Your task to perform on an android device: Play the last video I watched on Youtube Image 0: 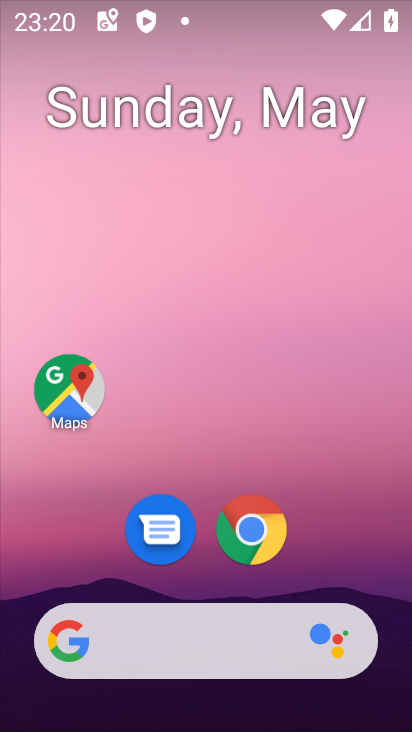
Step 0: drag from (366, 556) to (255, 20)
Your task to perform on an android device: Play the last video I watched on Youtube Image 1: 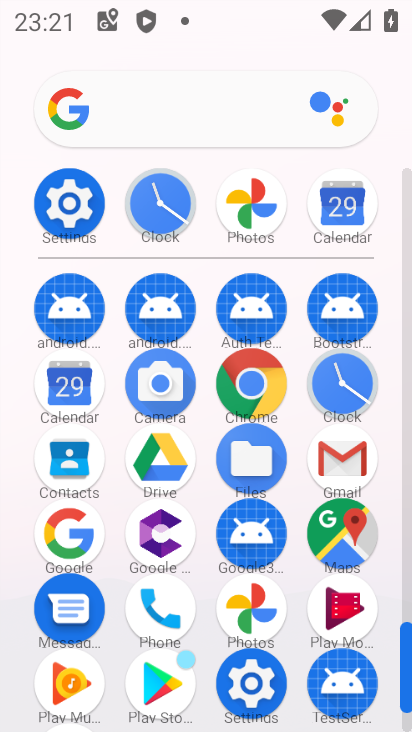
Step 1: click (407, 729)
Your task to perform on an android device: Play the last video I watched on Youtube Image 2: 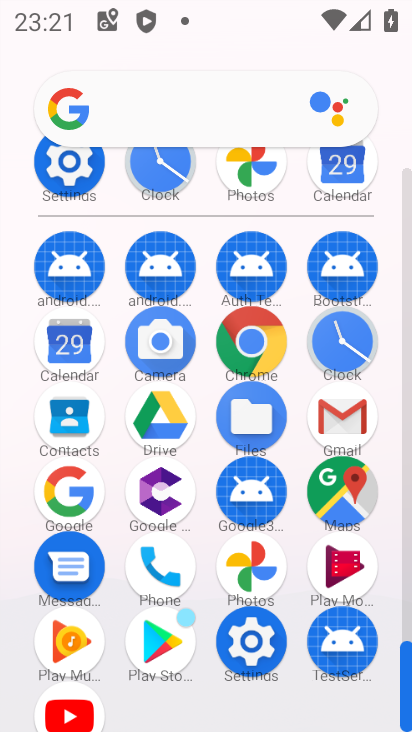
Step 2: click (49, 704)
Your task to perform on an android device: Play the last video I watched on Youtube Image 3: 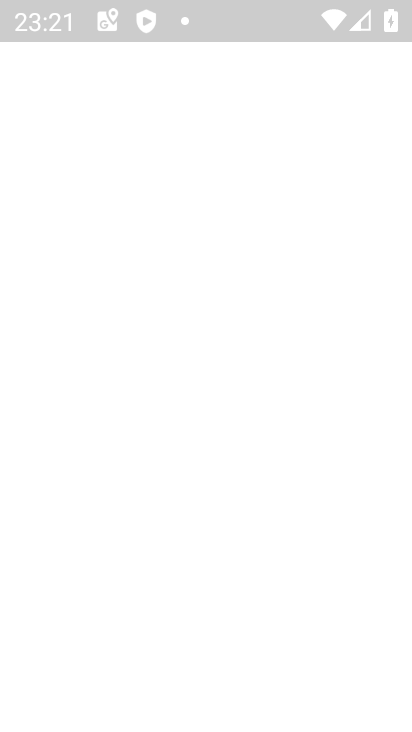
Step 3: task complete